Your task to perform on an android device: Open display settings Image 0: 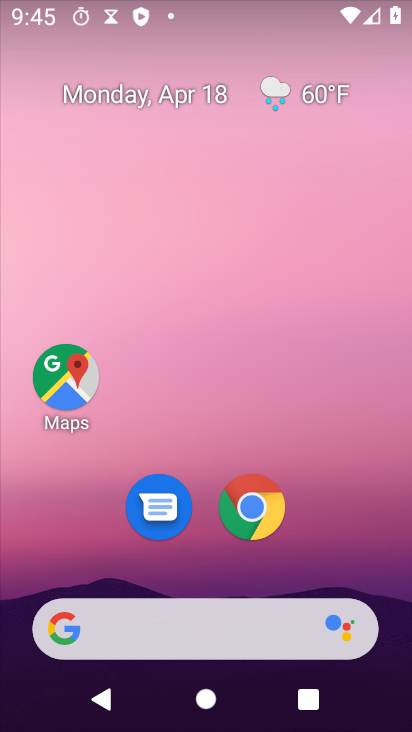
Step 0: drag from (345, 551) to (288, 0)
Your task to perform on an android device: Open display settings Image 1: 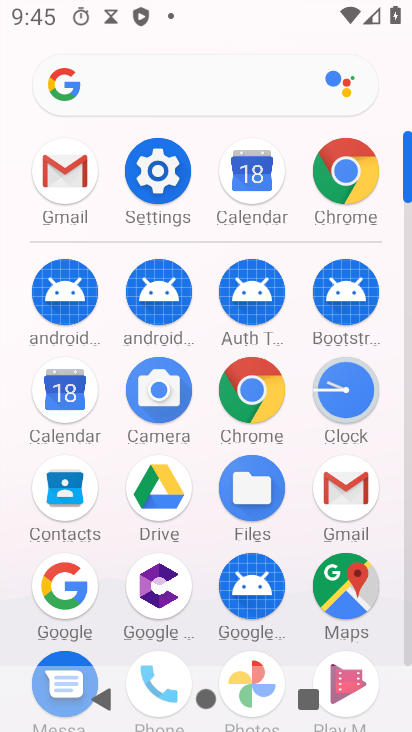
Step 1: click (163, 183)
Your task to perform on an android device: Open display settings Image 2: 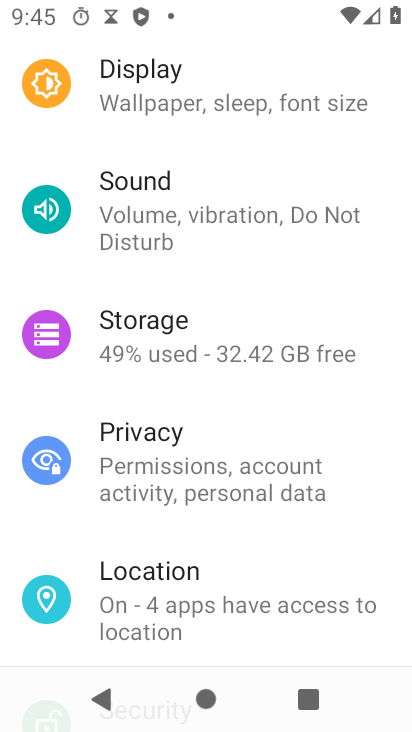
Step 2: click (182, 93)
Your task to perform on an android device: Open display settings Image 3: 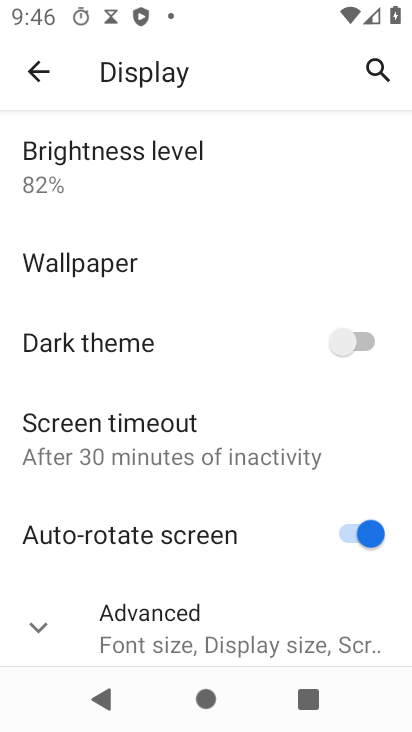
Step 3: task complete